Your task to perform on an android device: When is my next appointment? Image 0: 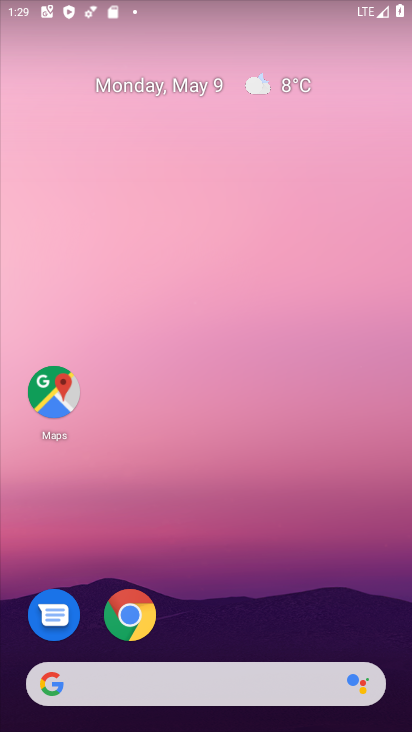
Step 0: drag from (375, 625) to (314, 160)
Your task to perform on an android device: When is my next appointment? Image 1: 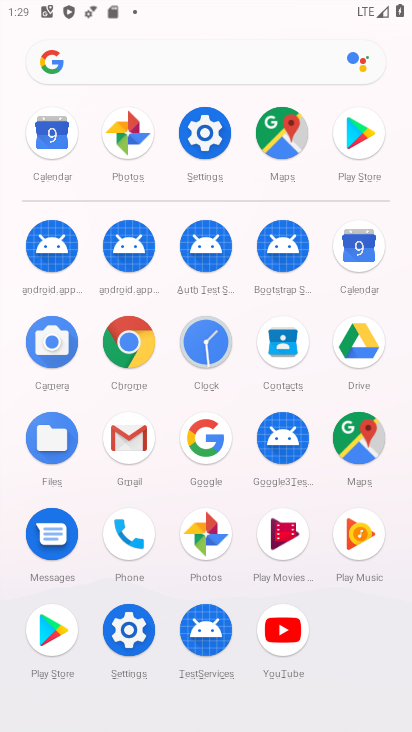
Step 1: click (353, 246)
Your task to perform on an android device: When is my next appointment? Image 2: 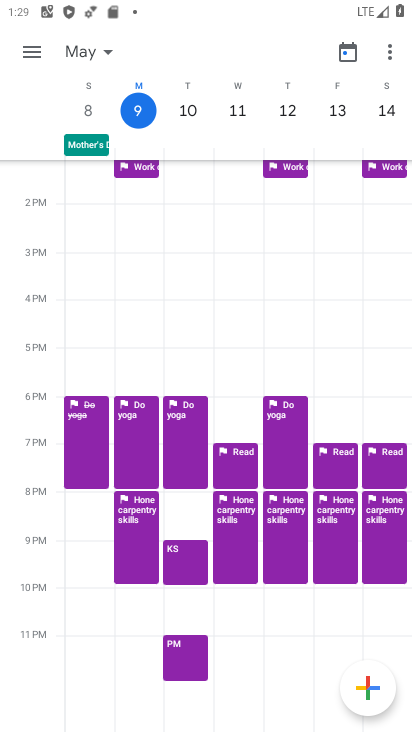
Step 2: task complete